Your task to perform on an android device: Find coffee shops on Maps Image 0: 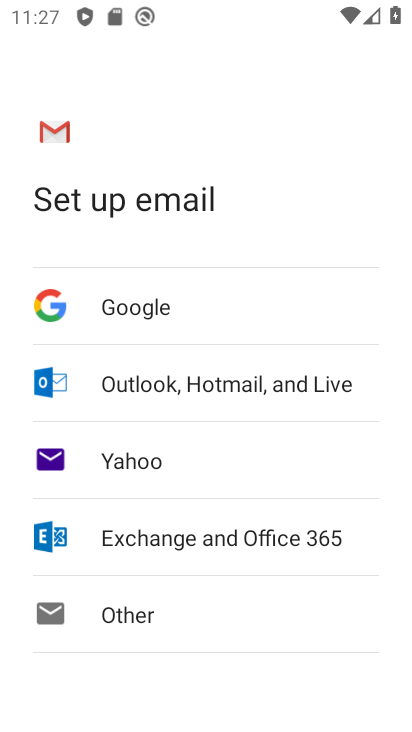
Step 0: press home button
Your task to perform on an android device: Find coffee shops on Maps Image 1: 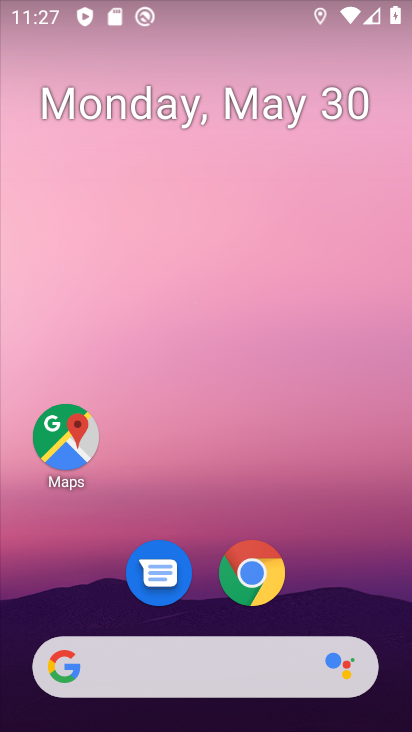
Step 1: click (35, 464)
Your task to perform on an android device: Find coffee shops on Maps Image 2: 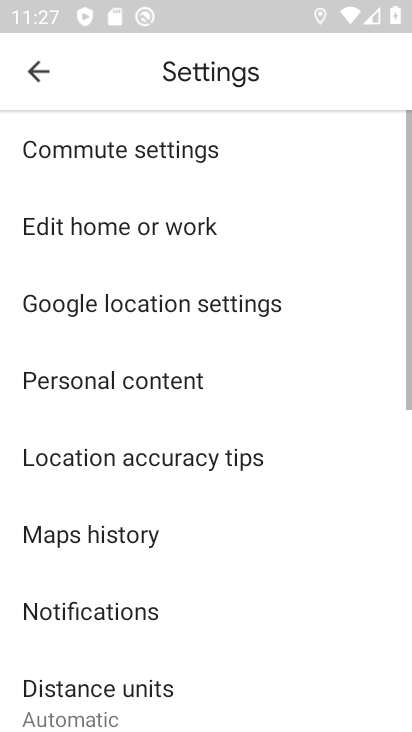
Step 2: click (45, 78)
Your task to perform on an android device: Find coffee shops on Maps Image 3: 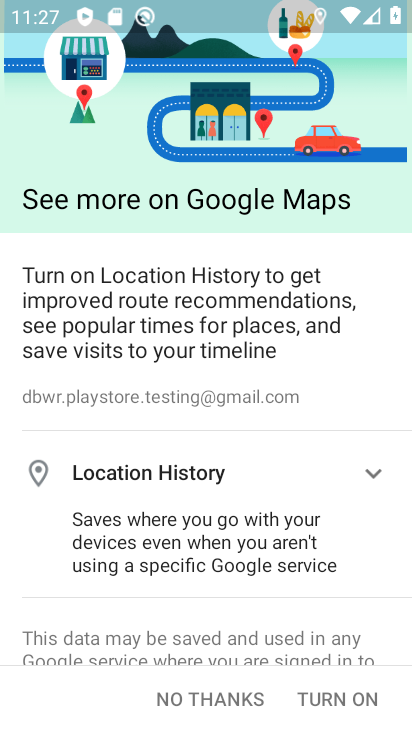
Step 3: drag from (309, 592) to (393, 18)
Your task to perform on an android device: Find coffee shops on Maps Image 4: 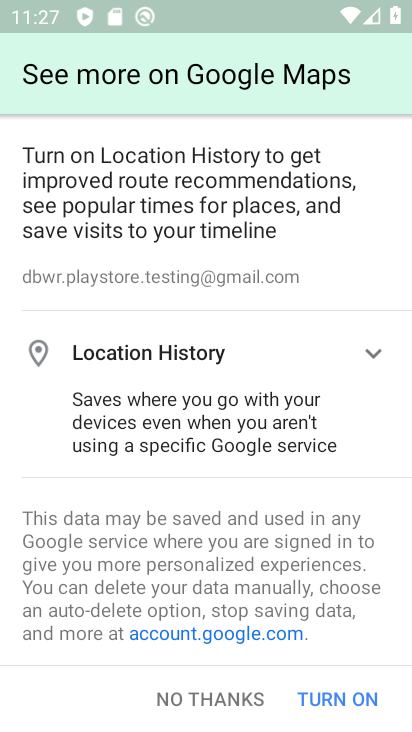
Step 4: click (326, 703)
Your task to perform on an android device: Find coffee shops on Maps Image 5: 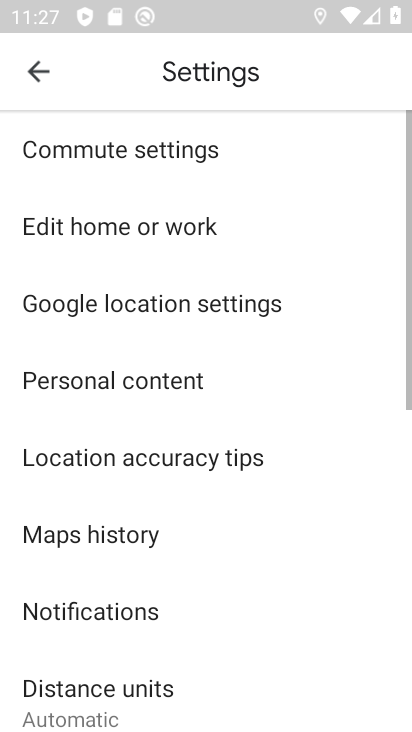
Step 5: click (37, 69)
Your task to perform on an android device: Find coffee shops on Maps Image 6: 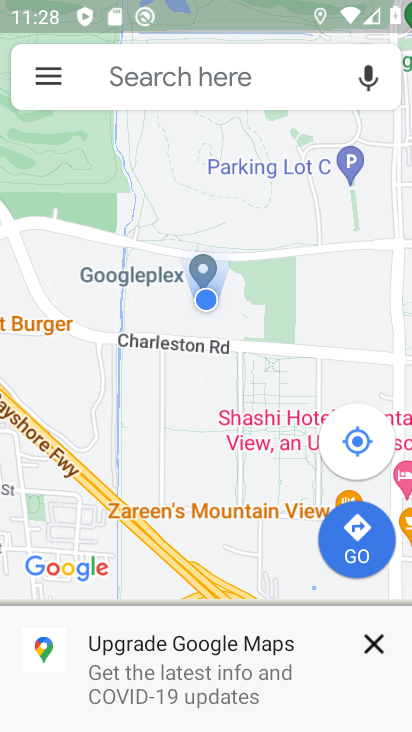
Step 6: click (158, 71)
Your task to perform on an android device: Find coffee shops on Maps Image 7: 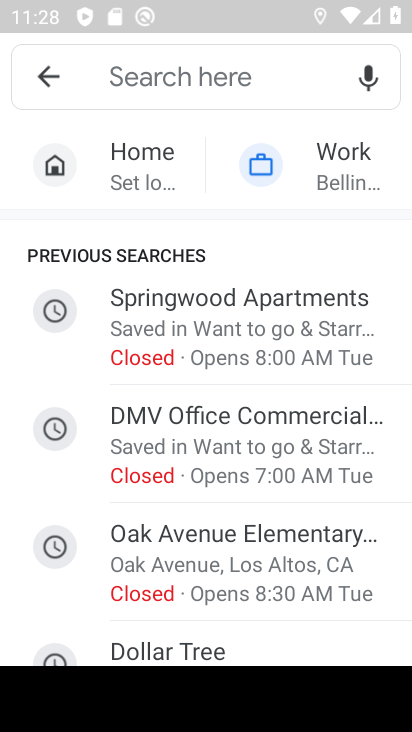
Step 7: type "coffee shop"
Your task to perform on an android device: Find coffee shops on Maps Image 8: 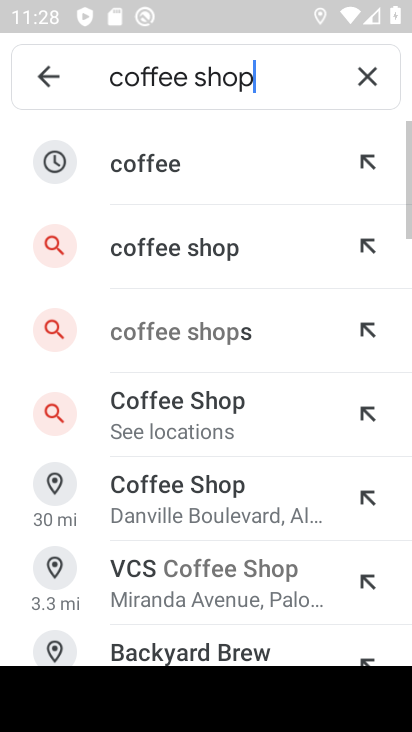
Step 8: click (260, 243)
Your task to perform on an android device: Find coffee shops on Maps Image 9: 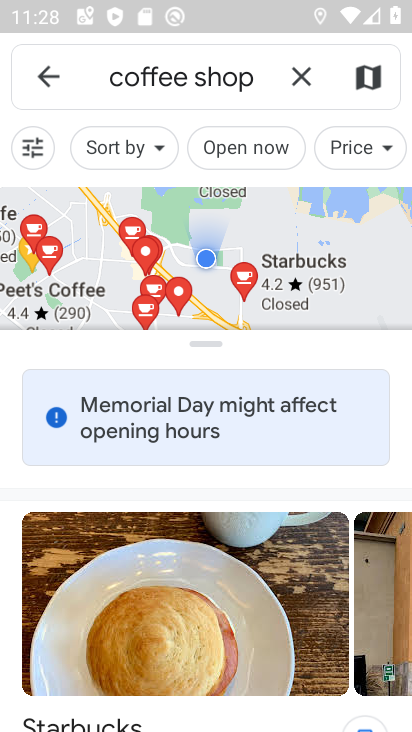
Step 9: task complete